Your task to perform on an android device: turn off notifications settings in the gmail app Image 0: 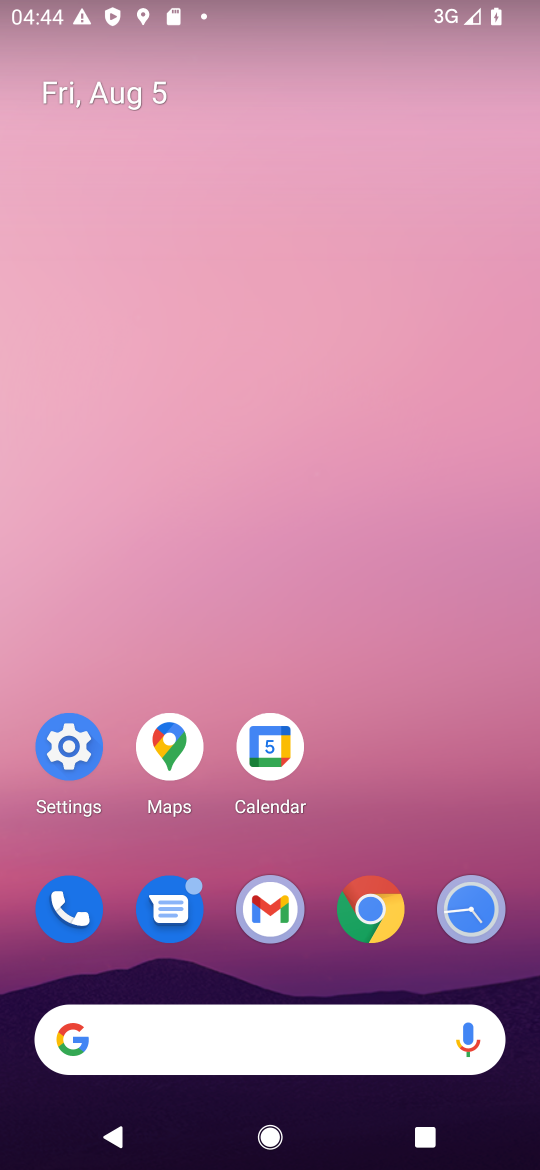
Step 0: click (269, 899)
Your task to perform on an android device: turn off notifications settings in the gmail app Image 1: 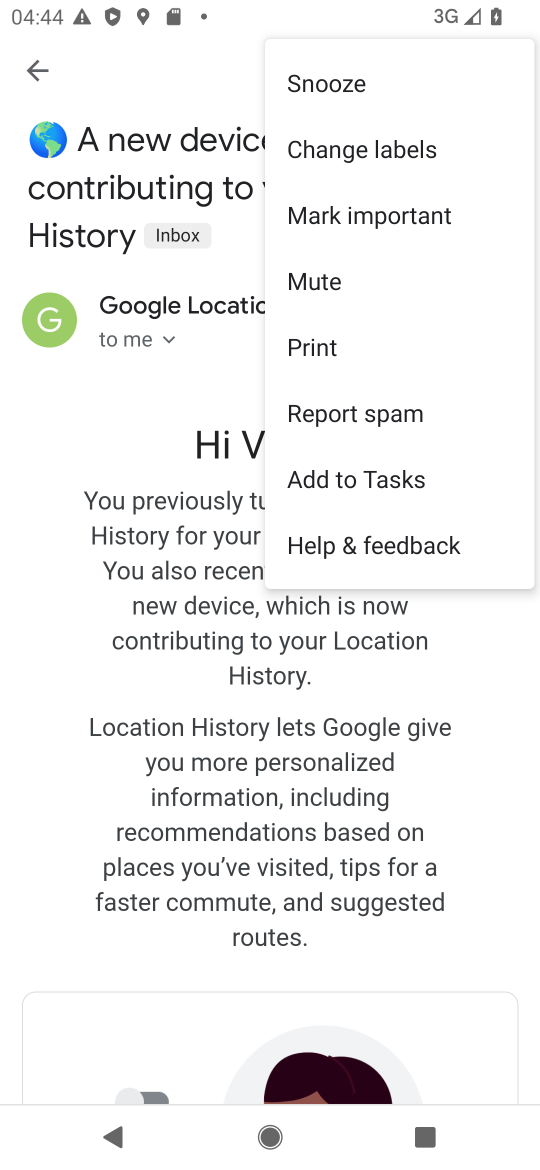
Step 1: click (51, 393)
Your task to perform on an android device: turn off notifications settings in the gmail app Image 2: 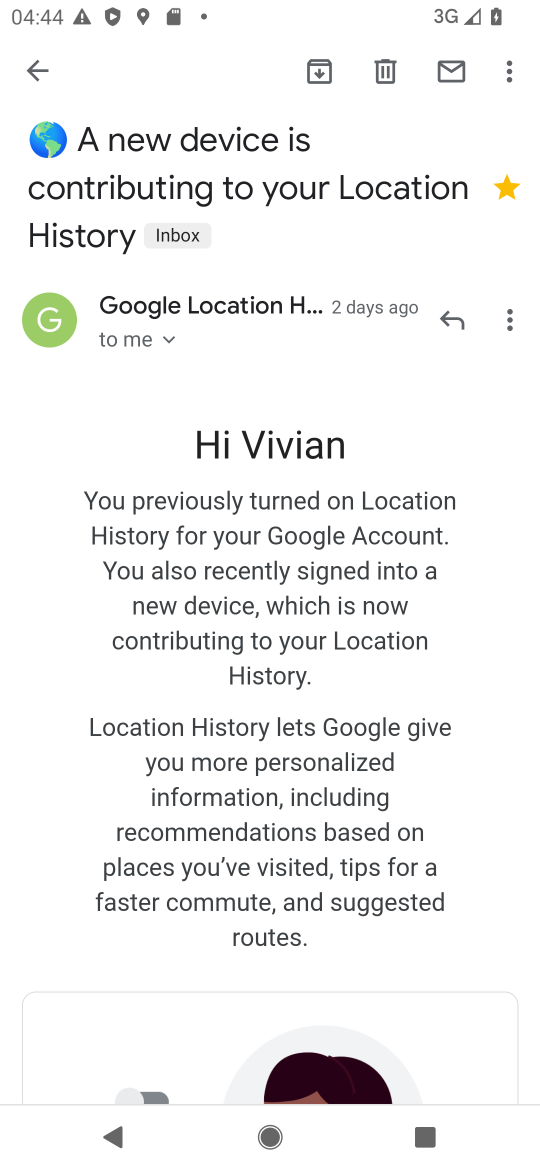
Step 2: click (31, 61)
Your task to perform on an android device: turn off notifications settings in the gmail app Image 3: 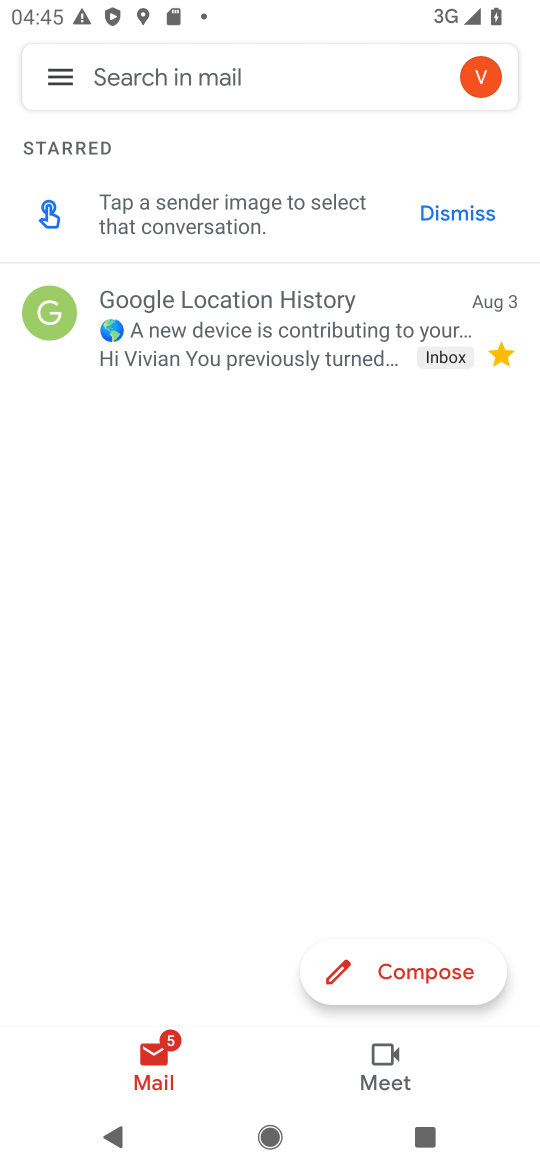
Step 3: click (52, 70)
Your task to perform on an android device: turn off notifications settings in the gmail app Image 4: 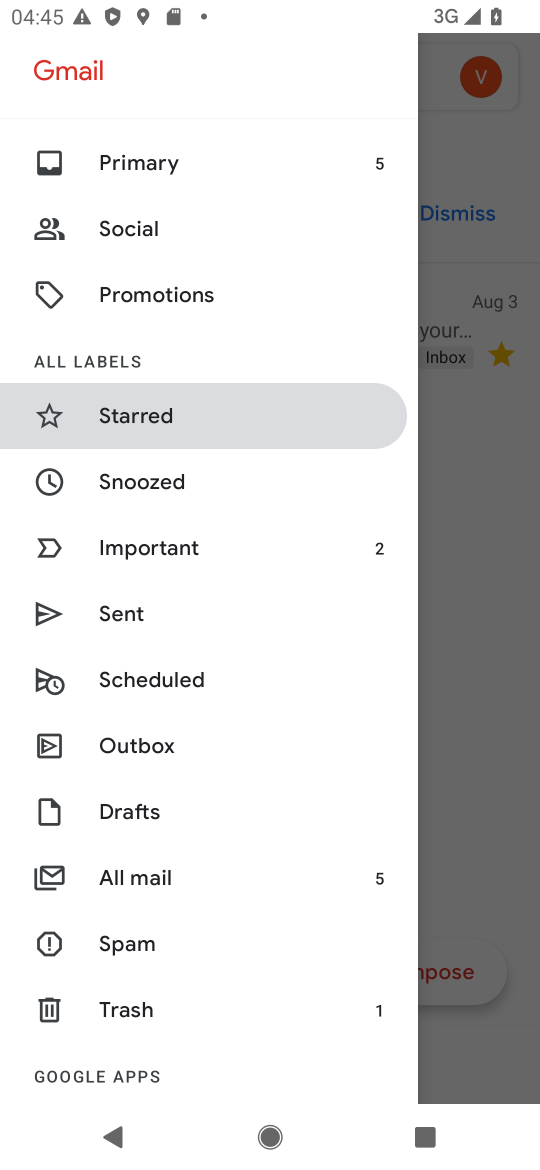
Step 4: drag from (235, 929) to (231, 413)
Your task to perform on an android device: turn off notifications settings in the gmail app Image 5: 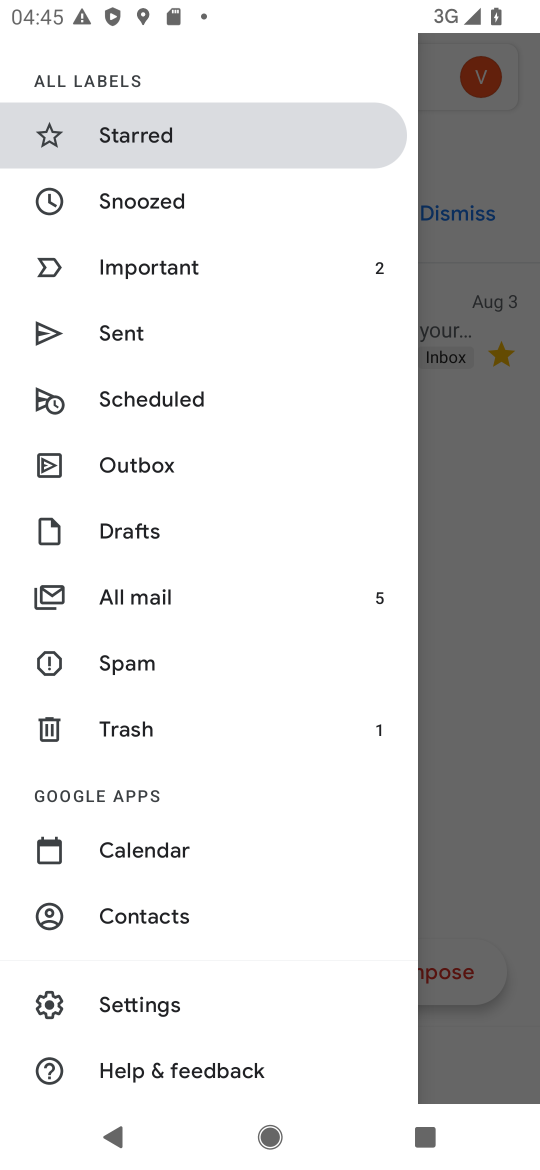
Step 5: click (165, 990)
Your task to perform on an android device: turn off notifications settings in the gmail app Image 6: 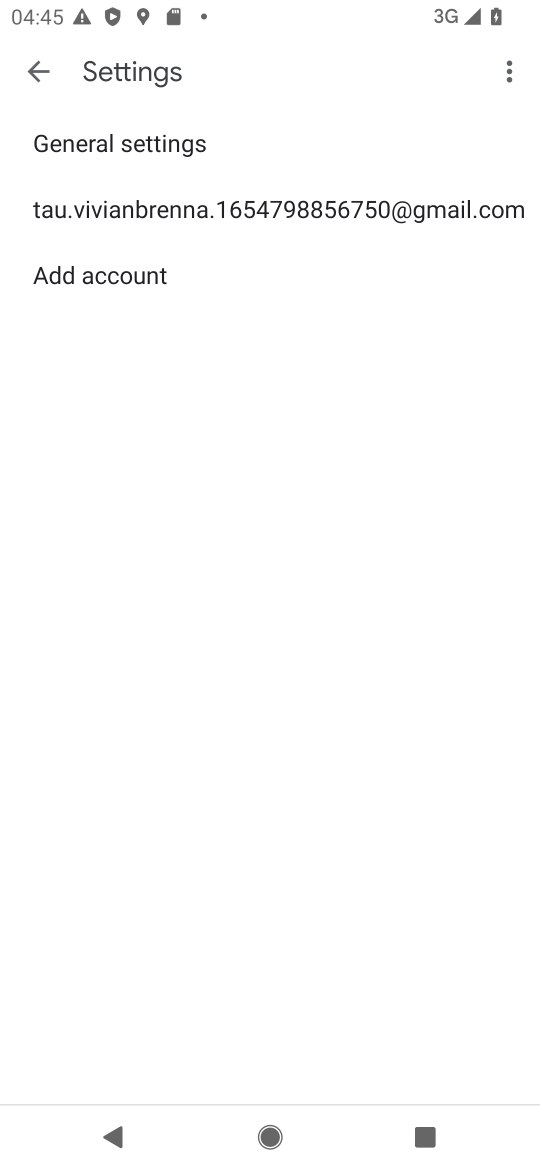
Step 6: click (83, 142)
Your task to perform on an android device: turn off notifications settings in the gmail app Image 7: 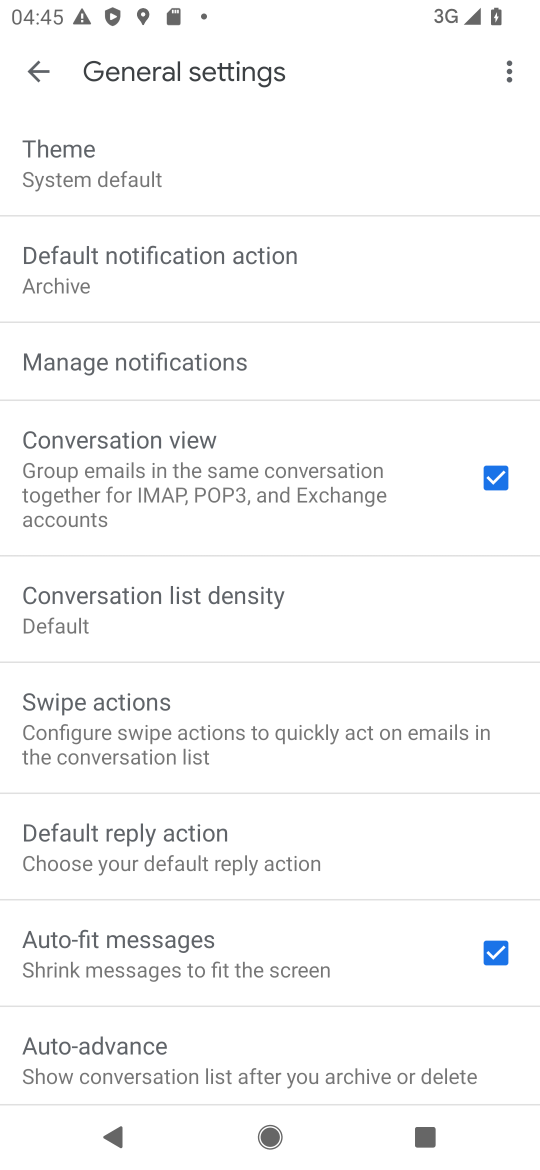
Step 7: click (181, 353)
Your task to perform on an android device: turn off notifications settings in the gmail app Image 8: 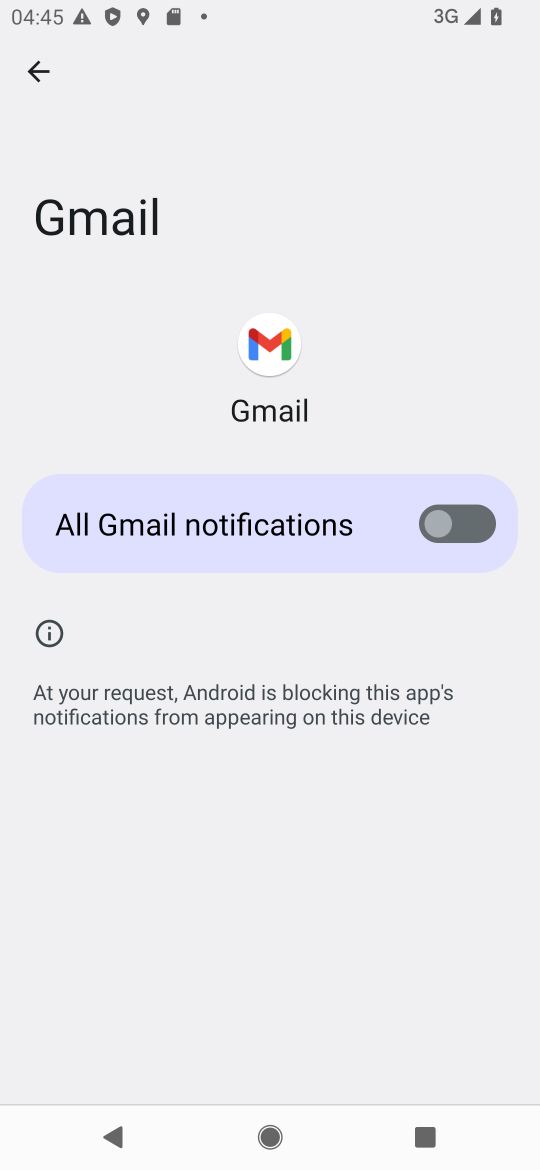
Step 8: task complete